Your task to perform on an android device: Toggle the flashlight Image 0: 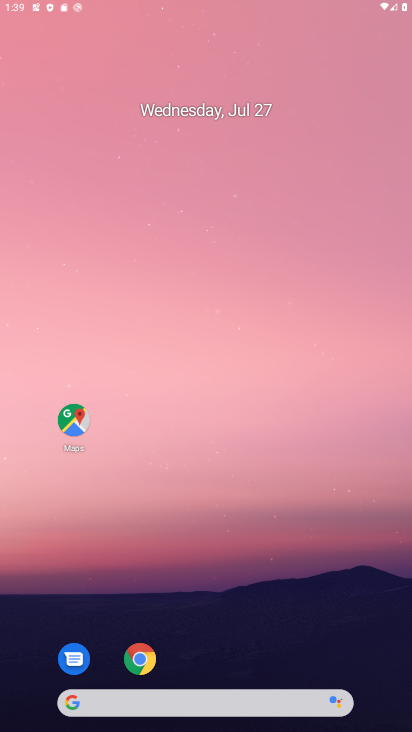
Step 0: drag from (250, 461) to (237, 93)
Your task to perform on an android device: Toggle the flashlight Image 1: 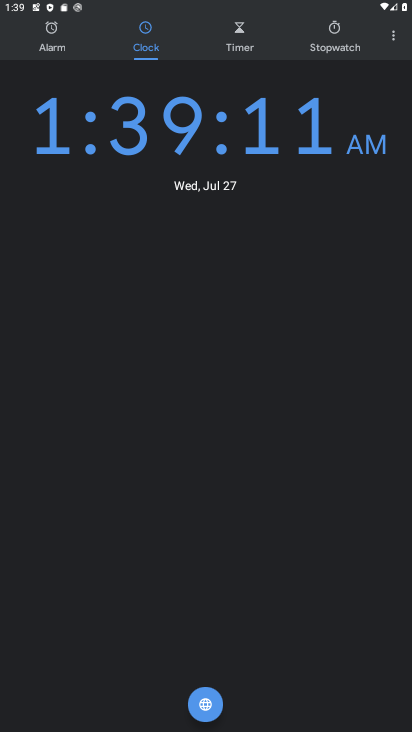
Step 1: press home button
Your task to perform on an android device: Toggle the flashlight Image 2: 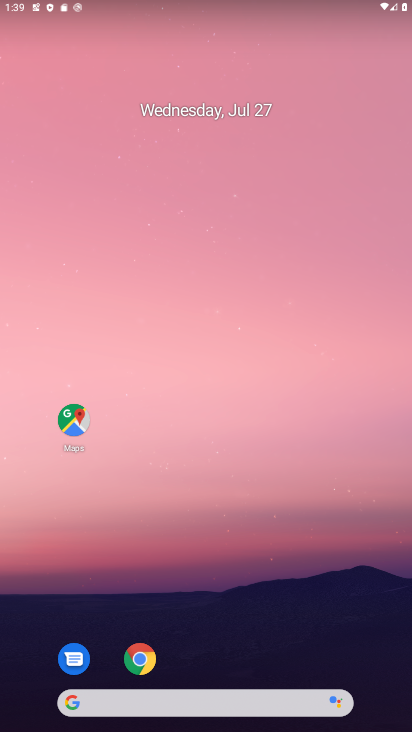
Step 2: drag from (291, 659) to (256, 134)
Your task to perform on an android device: Toggle the flashlight Image 3: 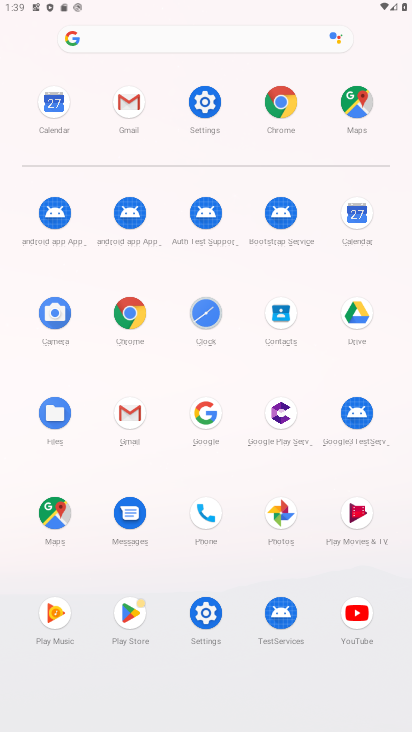
Step 3: click (207, 110)
Your task to perform on an android device: Toggle the flashlight Image 4: 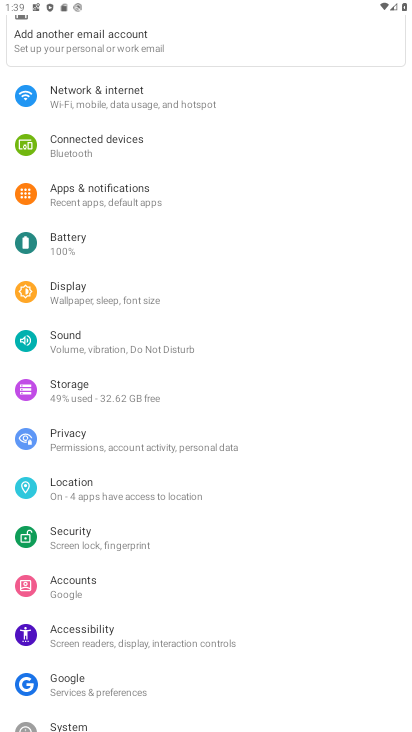
Step 4: click (78, 286)
Your task to perform on an android device: Toggle the flashlight Image 5: 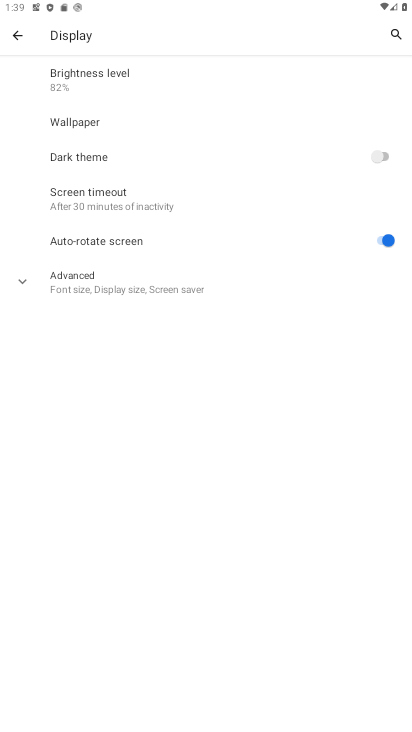
Step 5: click (76, 204)
Your task to perform on an android device: Toggle the flashlight Image 6: 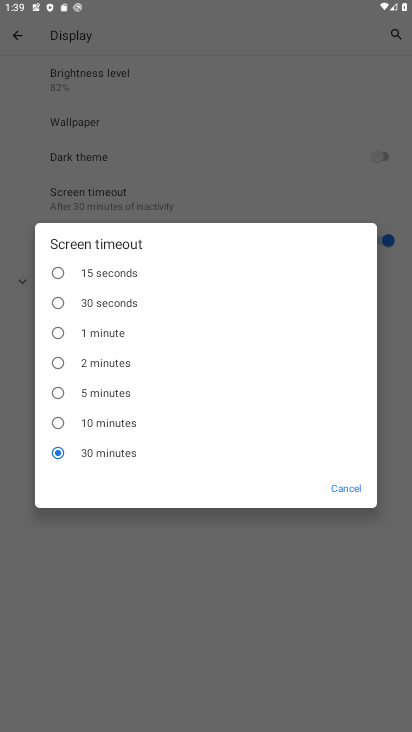
Step 6: task complete